Your task to perform on an android device: Go to Yahoo.com Image 0: 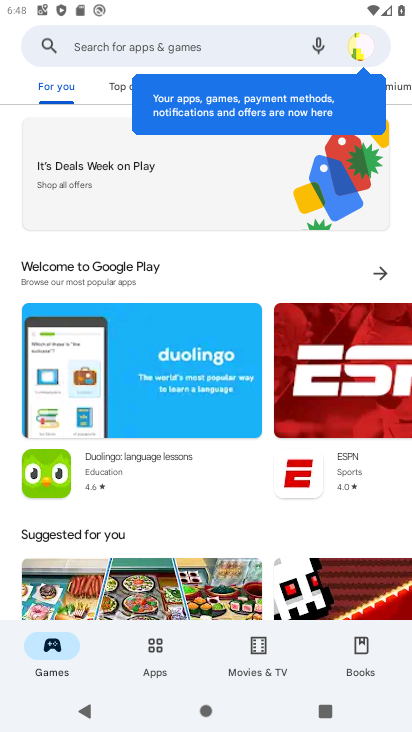
Step 0: press home button
Your task to perform on an android device: Go to Yahoo.com Image 1: 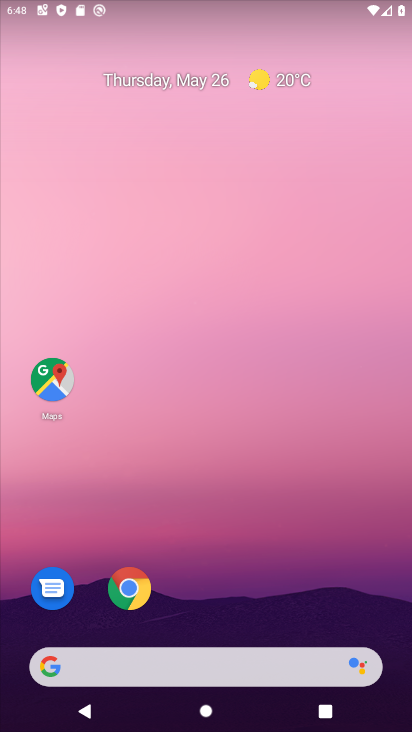
Step 1: drag from (376, 616) to (225, 92)
Your task to perform on an android device: Go to Yahoo.com Image 2: 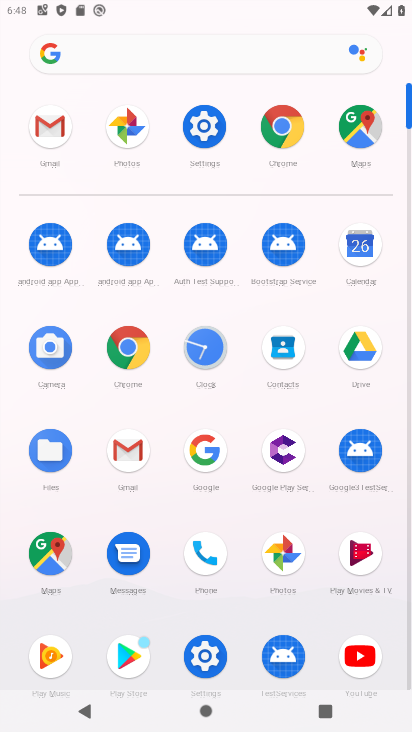
Step 2: click (199, 454)
Your task to perform on an android device: Go to Yahoo.com Image 3: 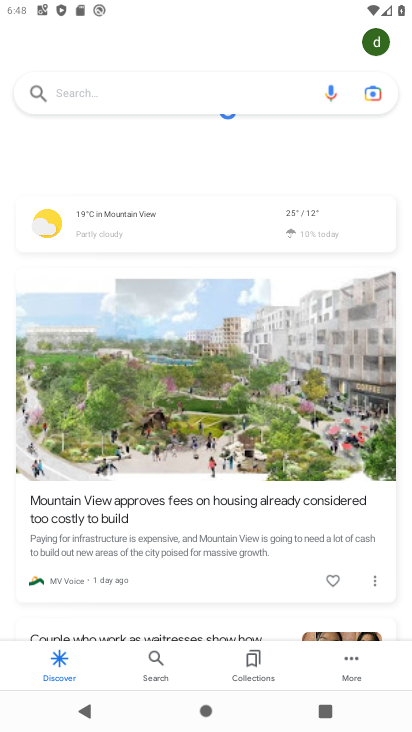
Step 3: click (161, 86)
Your task to perform on an android device: Go to Yahoo.com Image 4: 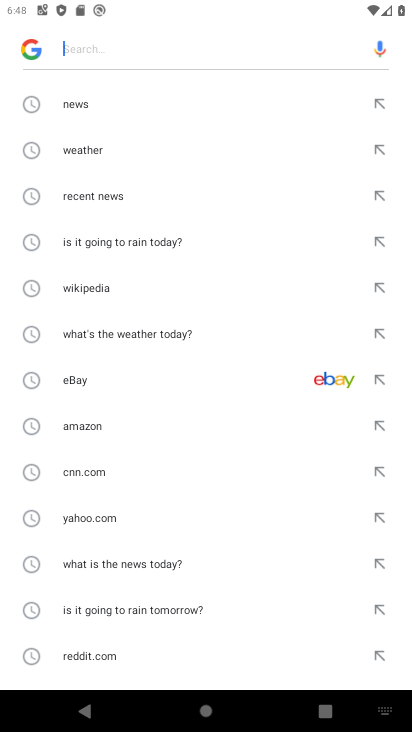
Step 4: click (121, 518)
Your task to perform on an android device: Go to Yahoo.com Image 5: 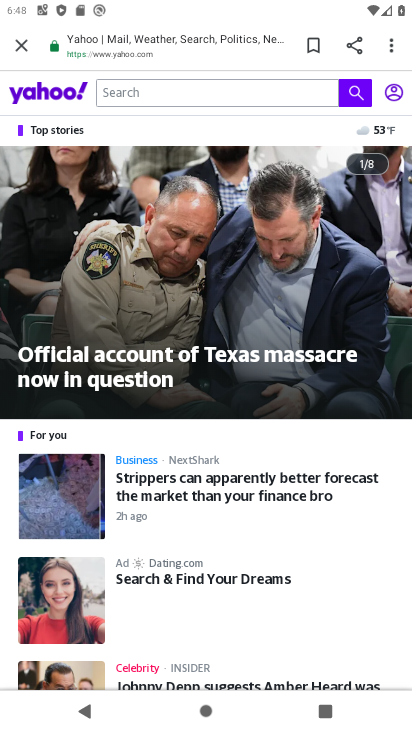
Step 5: task complete